Your task to perform on an android device: search for starred emails in the gmail app Image 0: 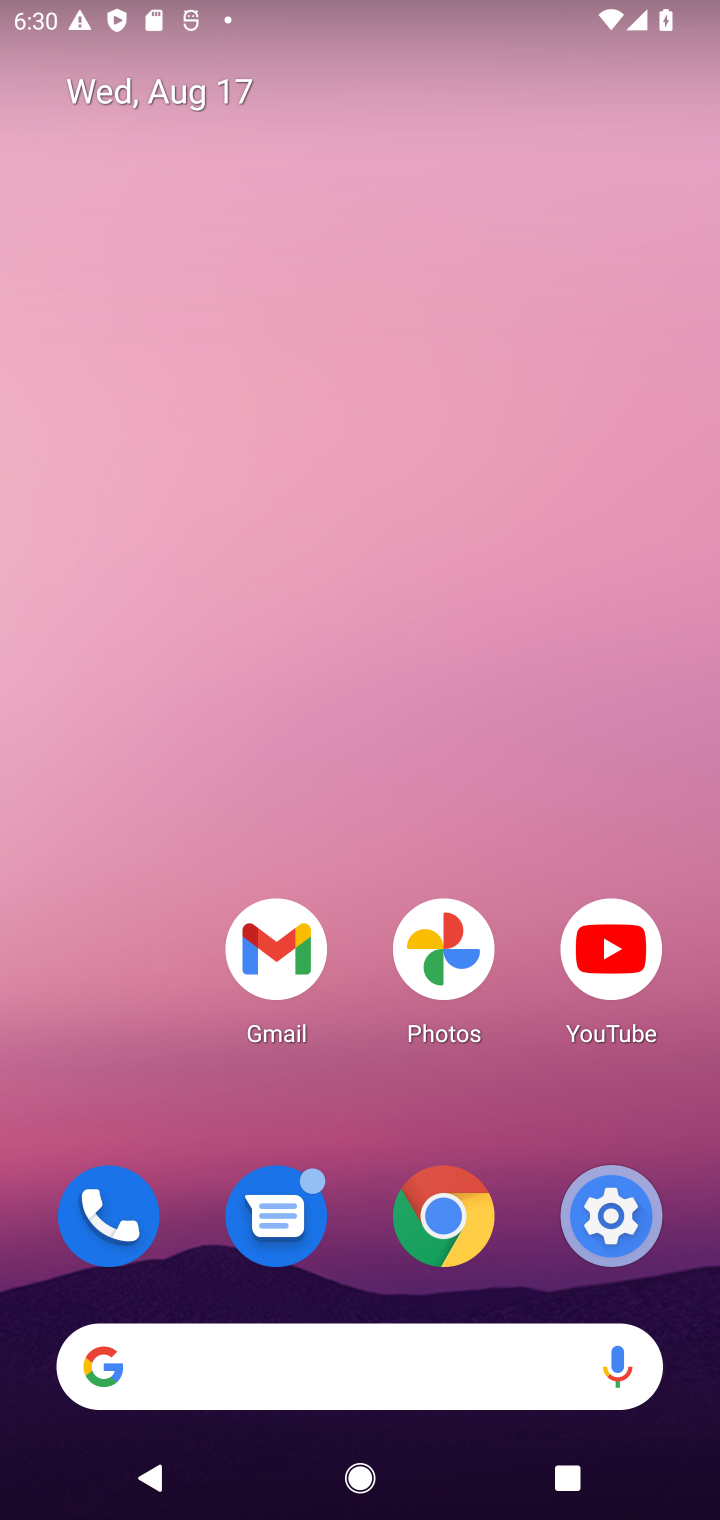
Step 0: click (267, 921)
Your task to perform on an android device: search for starred emails in the gmail app Image 1: 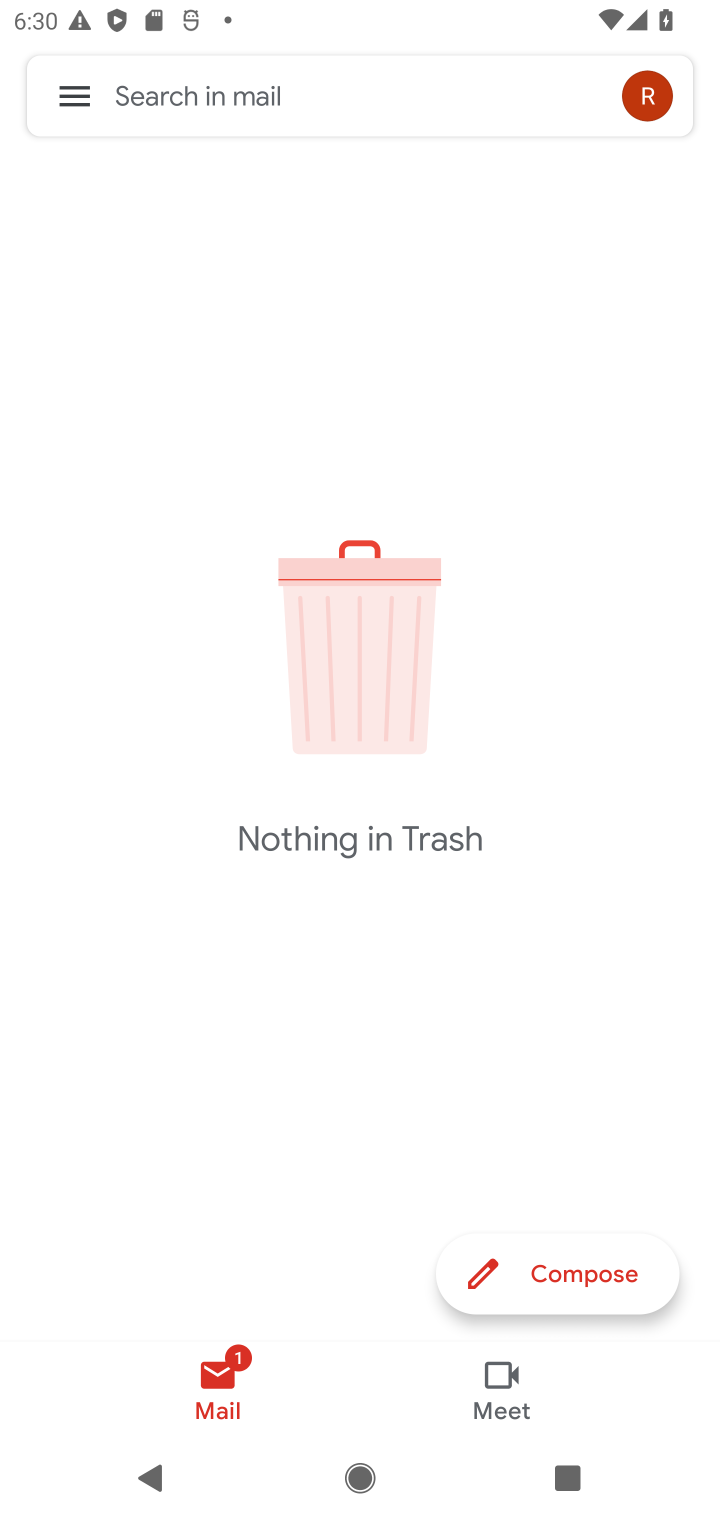
Step 1: click (71, 104)
Your task to perform on an android device: search for starred emails in the gmail app Image 2: 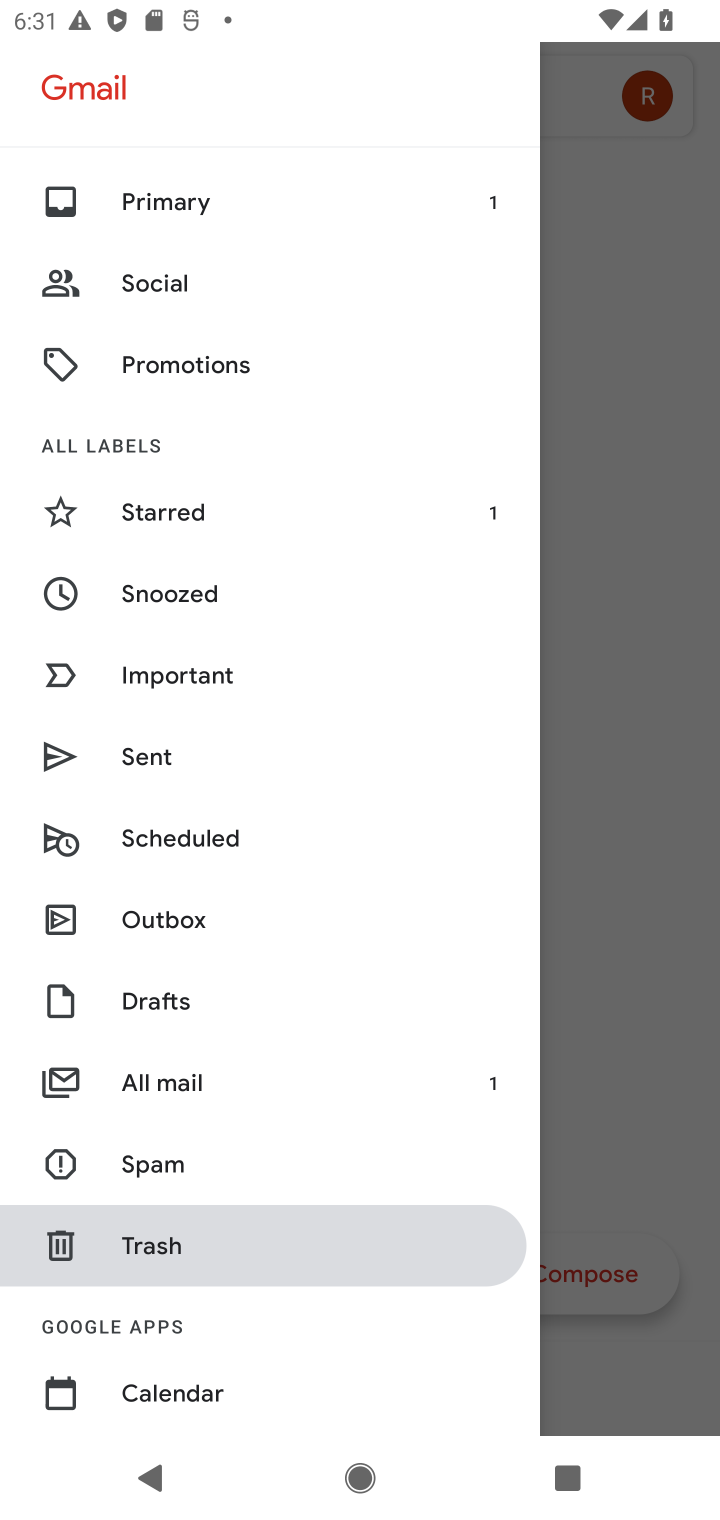
Step 2: drag from (181, 979) to (213, 333)
Your task to perform on an android device: search for starred emails in the gmail app Image 3: 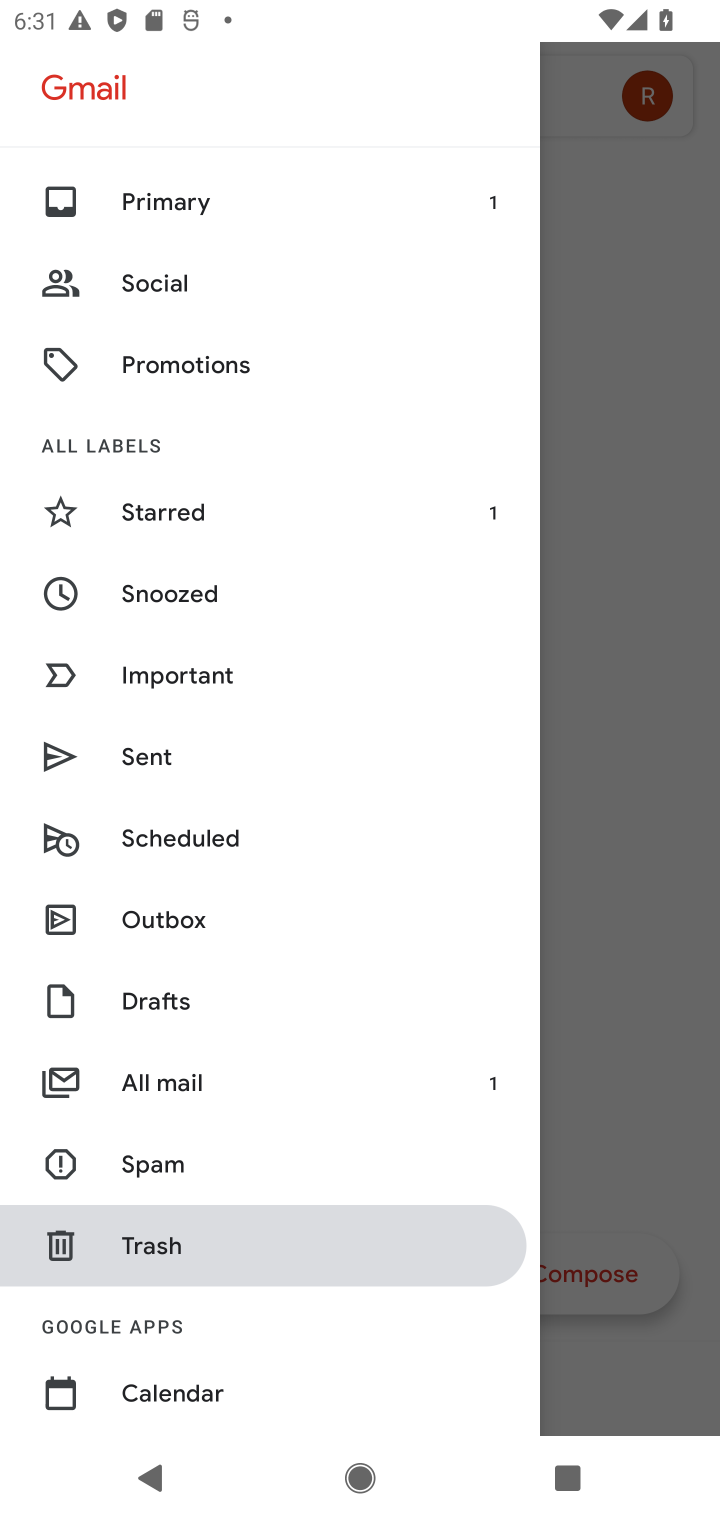
Step 3: click (168, 511)
Your task to perform on an android device: search for starred emails in the gmail app Image 4: 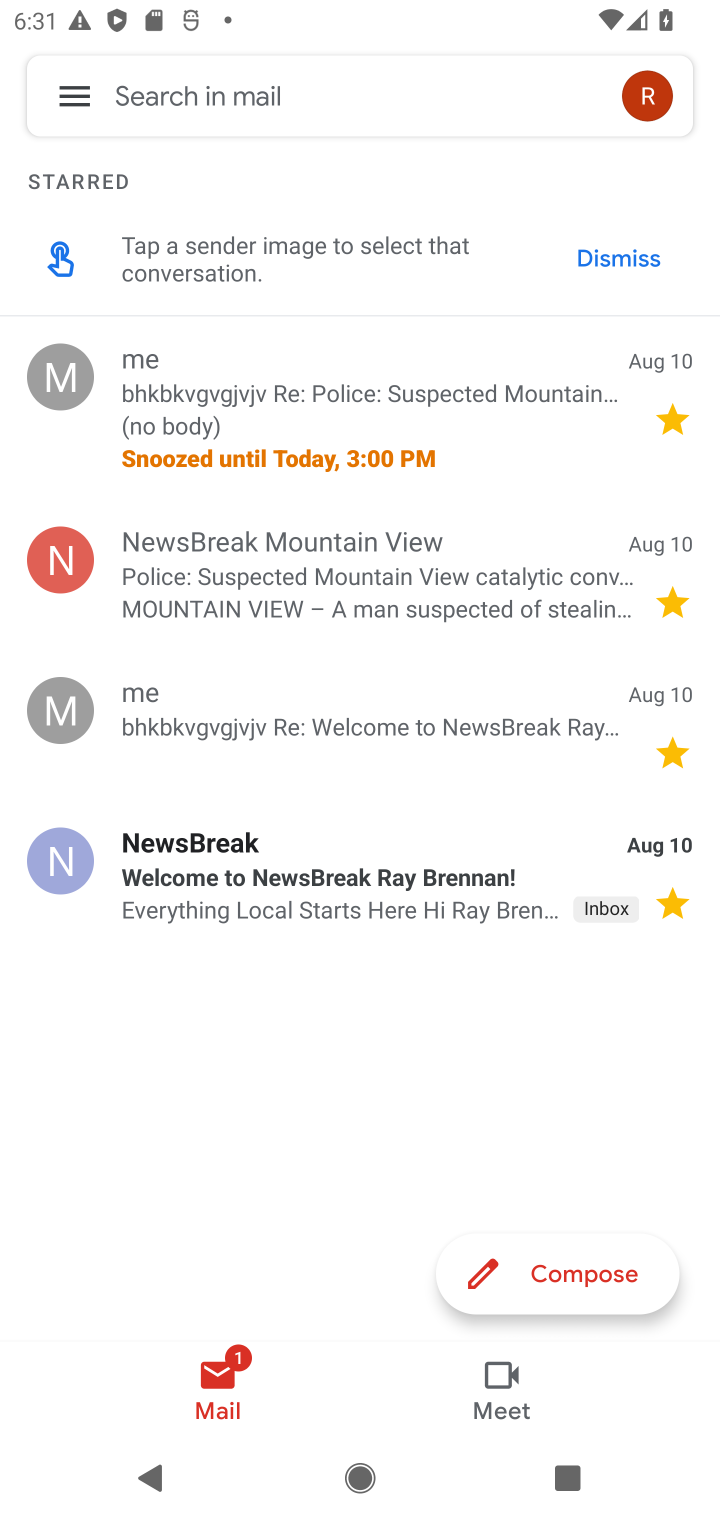
Step 4: task complete